Your task to perform on an android device: move a message to another label in the gmail app Image 0: 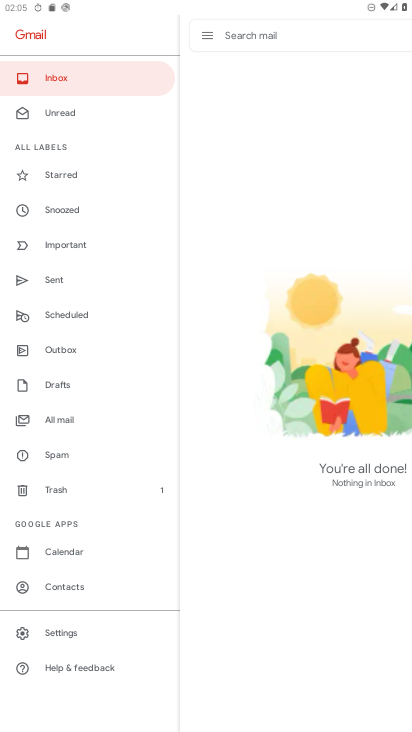
Step 0: click (69, 81)
Your task to perform on an android device: move a message to another label in the gmail app Image 1: 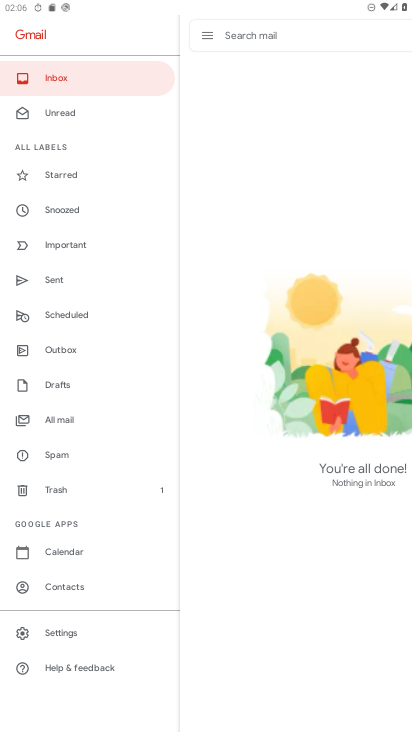
Step 1: click (69, 81)
Your task to perform on an android device: move a message to another label in the gmail app Image 2: 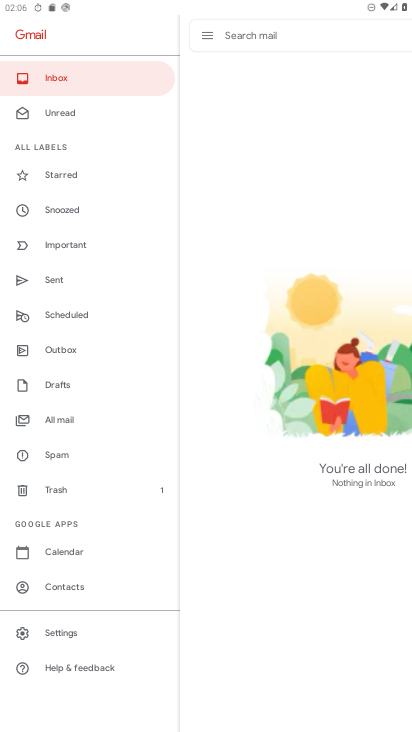
Step 2: task complete